Your task to perform on an android device: all mails in gmail Image 0: 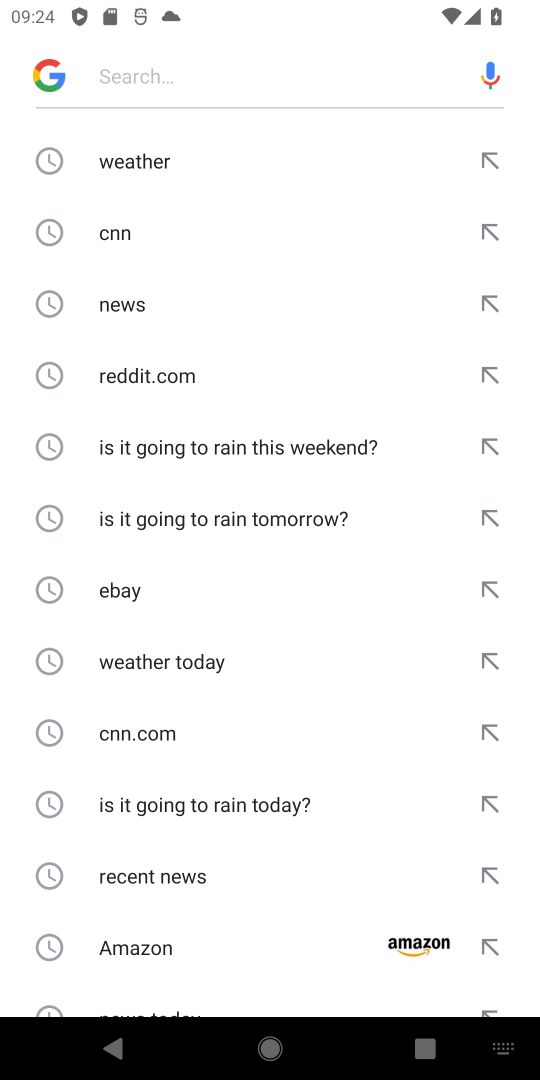
Step 0: press home button
Your task to perform on an android device: all mails in gmail Image 1: 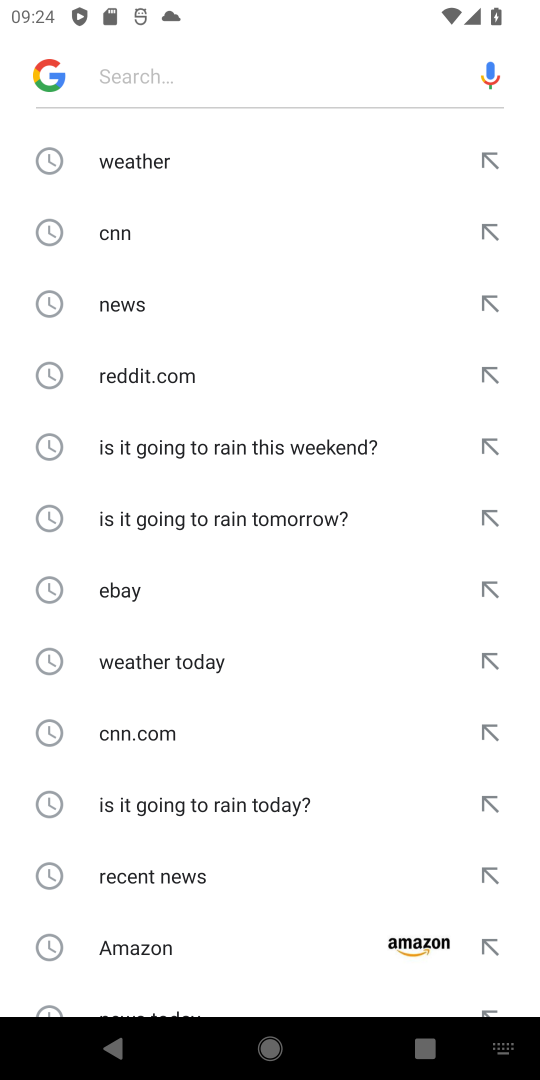
Step 1: press home button
Your task to perform on an android device: all mails in gmail Image 2: 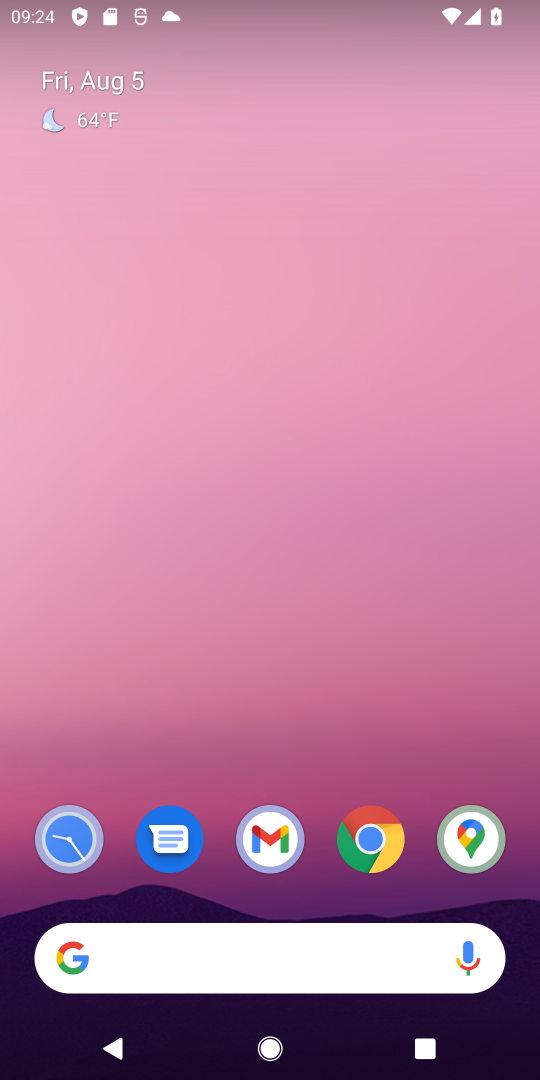
Step 2: drag from (268, 691) to (235, 164)
Your task to perform on an android device: all mails in gmail Image 3: 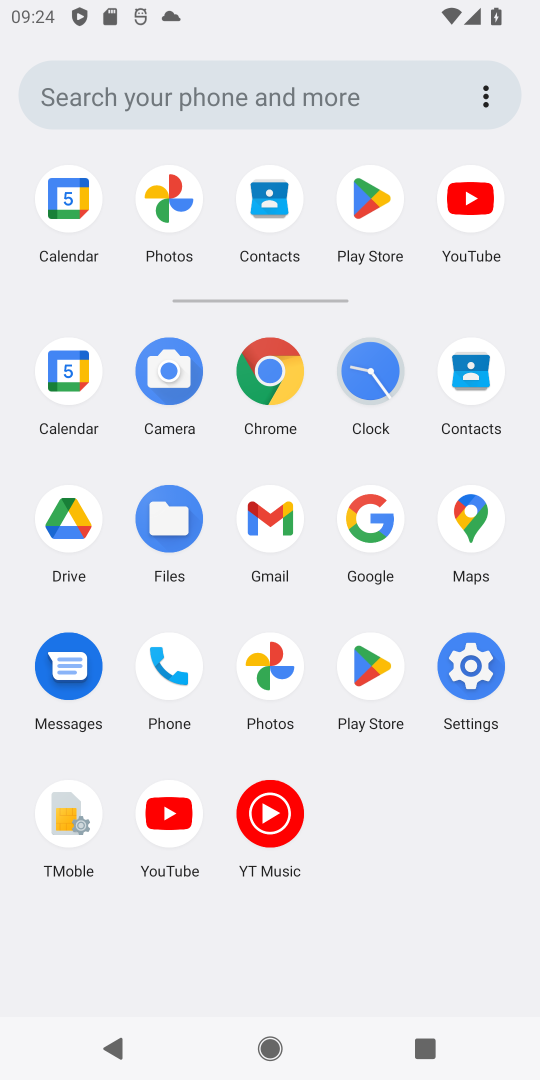
Step 3: click (274, 513)
Your task to perform on an android device: all mails in gmail Image 4: 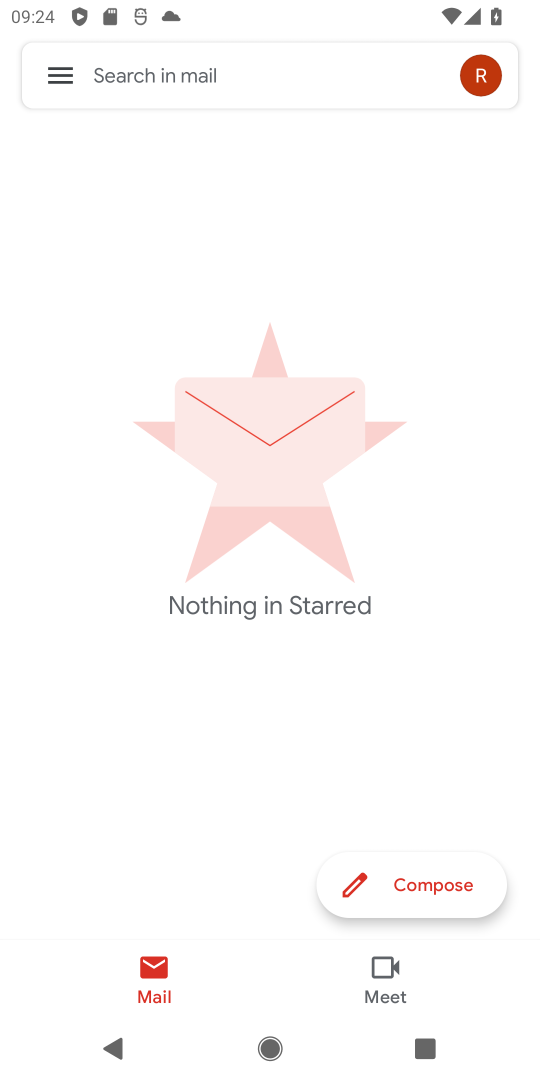
Step 4: click (65, 81)
Your task to perform on an android device: all mails in gmail Image 5: 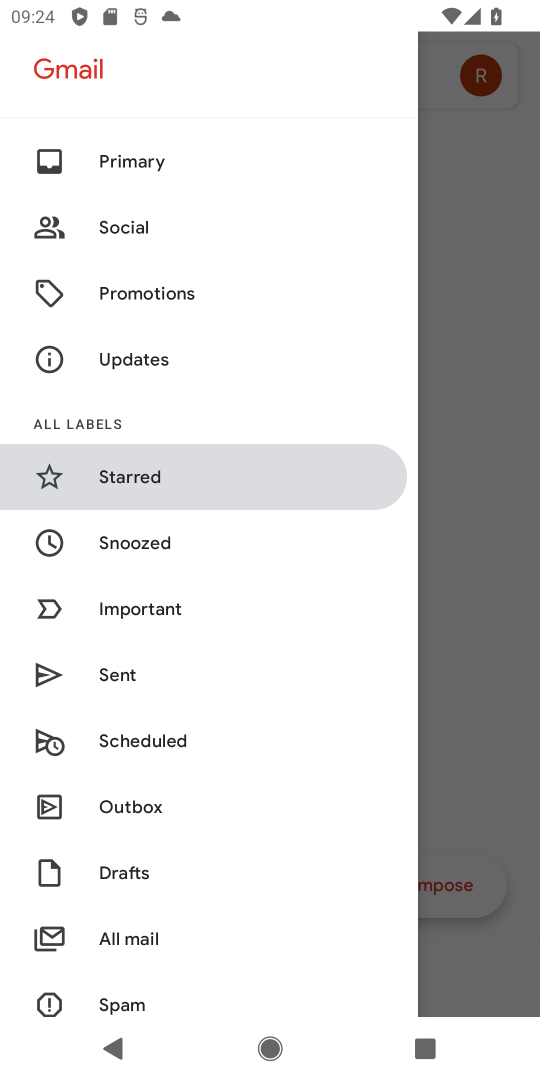
Step 5: click (138, 939)
Your task to perform on an android device: all mails in gmail Image 6: 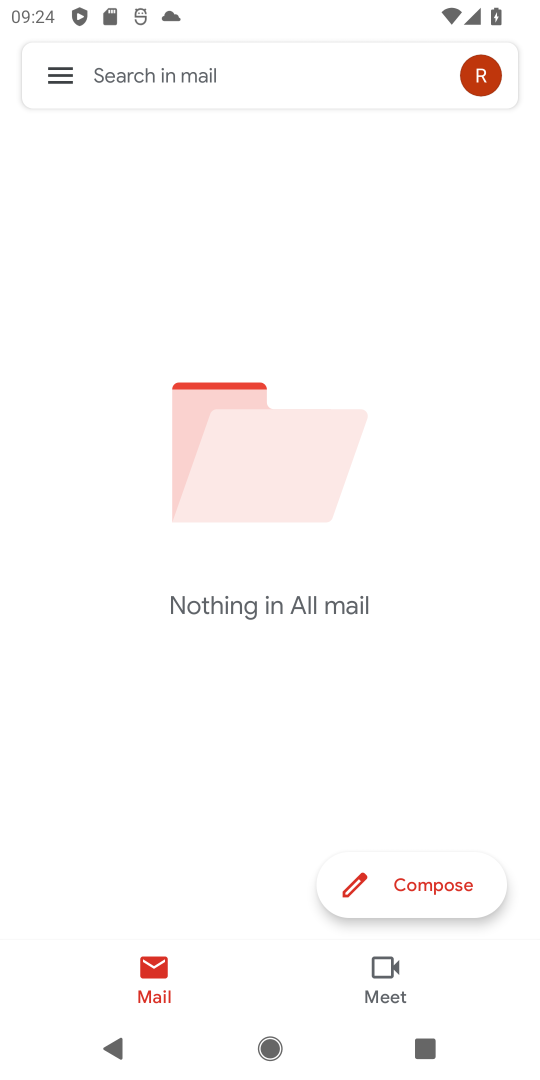
Step 6: task complete